Your task to perform on an android device: turn off location Image 0: 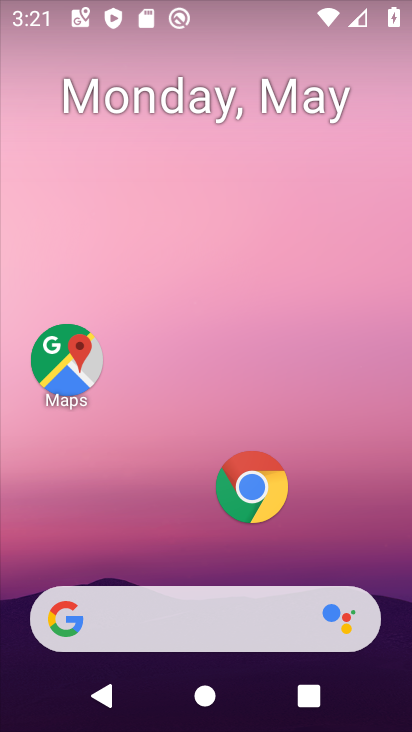
Step 0: drag from (148, 511) to (202, 5)
Your task to perform on an android device: turn off location Image 1: 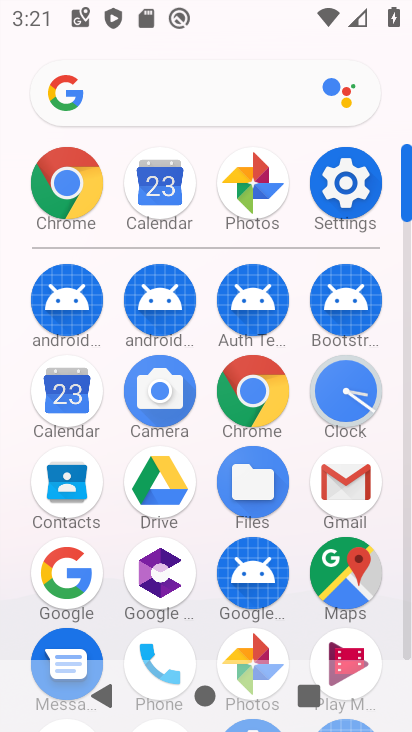
Step 1: click (348, 181)
Your task to perform on an android device: turn off location Image 2: 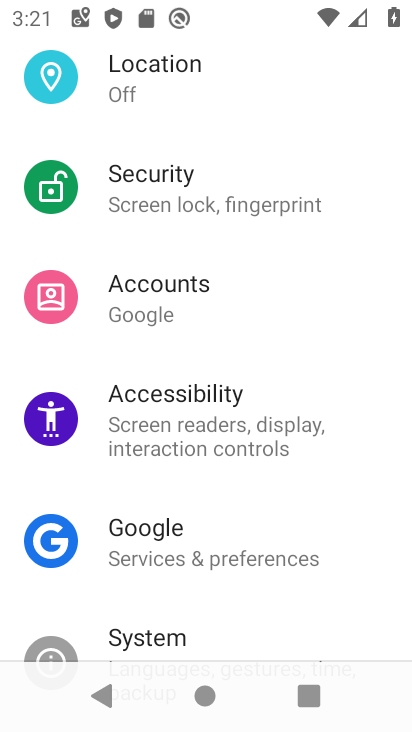
Step 2: click (158, 88)
Your task to perform on an android device: turn off location Image 3: 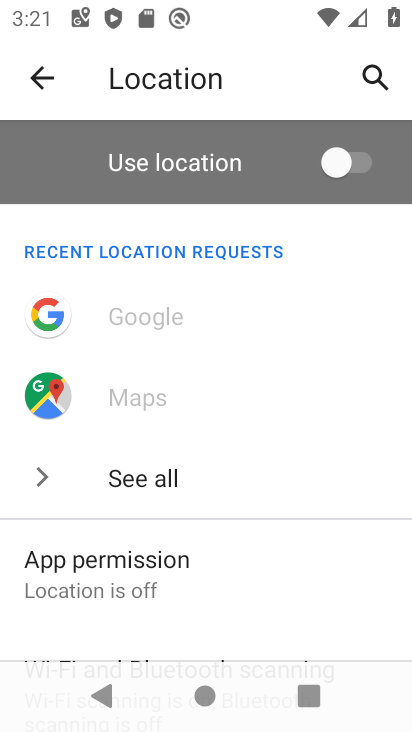
Step 3: task complete